Your task to perform on an android device: turn off wifi Image 0: 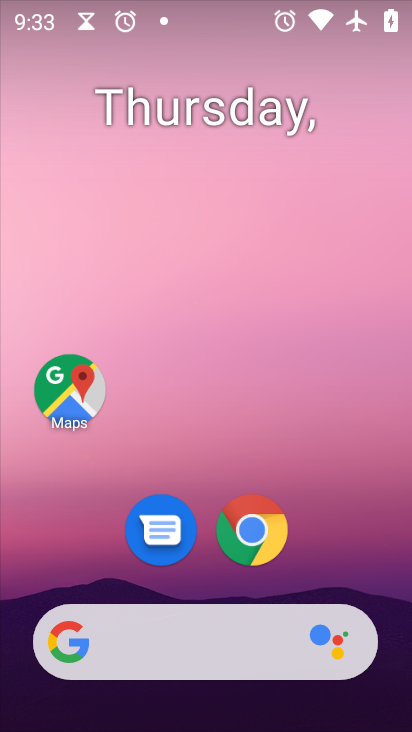
Step 0: drag from (327, 551) to (274, 37)
Your task to perform on an android device: turn off wifi Image 1: 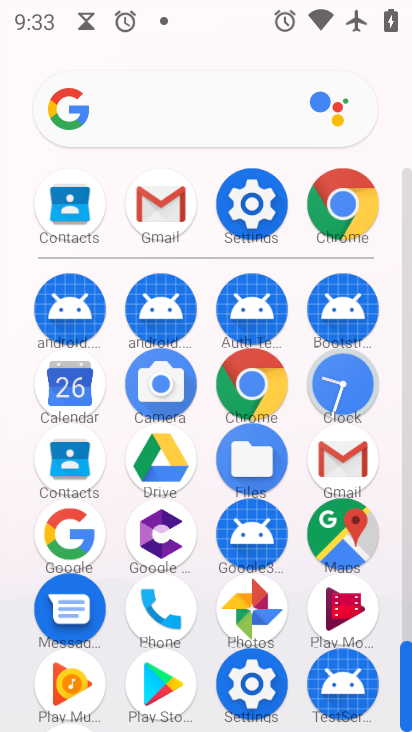
Step 1: drag from (10, 591) to (20, 272)
Your task to perform on an android device: turn off wifi Image 2: 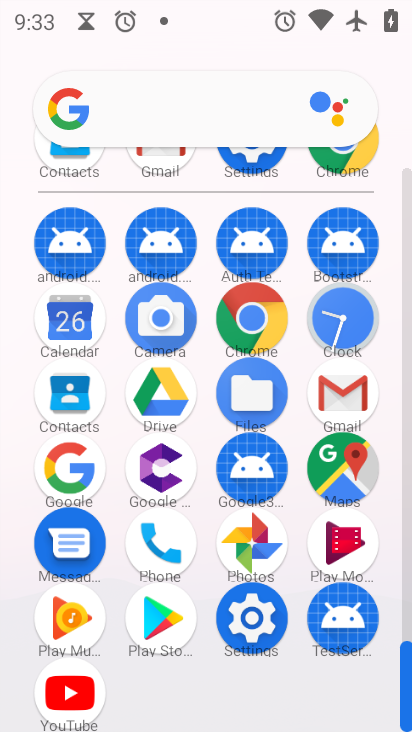
Step 2: click (253, 620)
Your task to perform on an android device: turn off wifi Image 3: 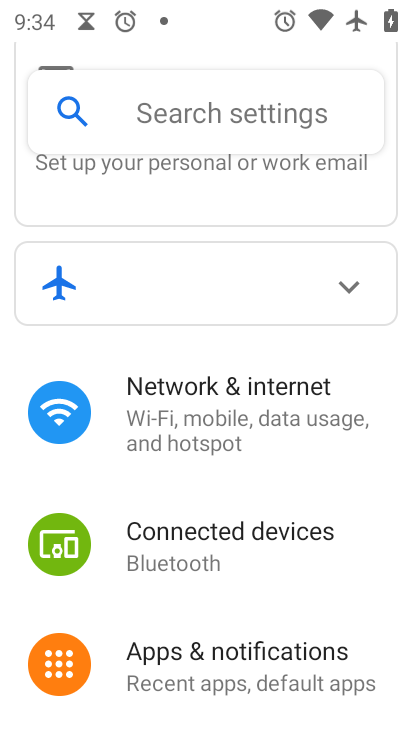
Step 3: click (269, 404)
Your task to perform on an android device: turn off wifi Image 4: 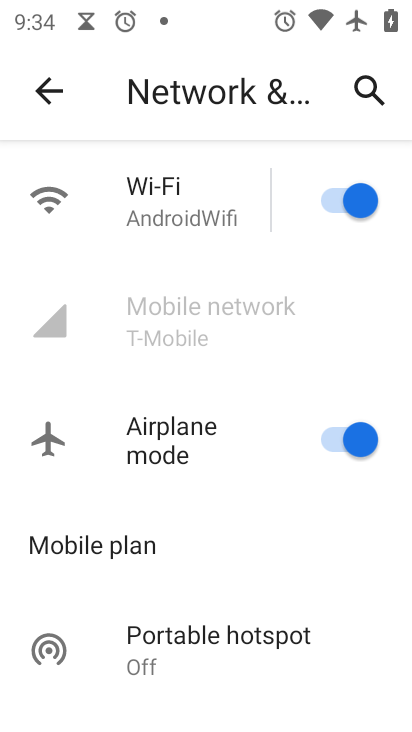
Step 4: click (342, 191)
Your task to perform on an android device: turn off wifi Image 5: 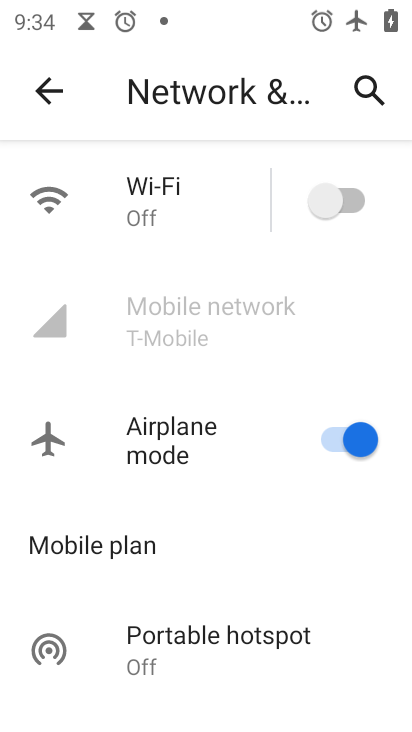
Step 5: task complete